Your task to perform on an android device: check out phone information Image 0: 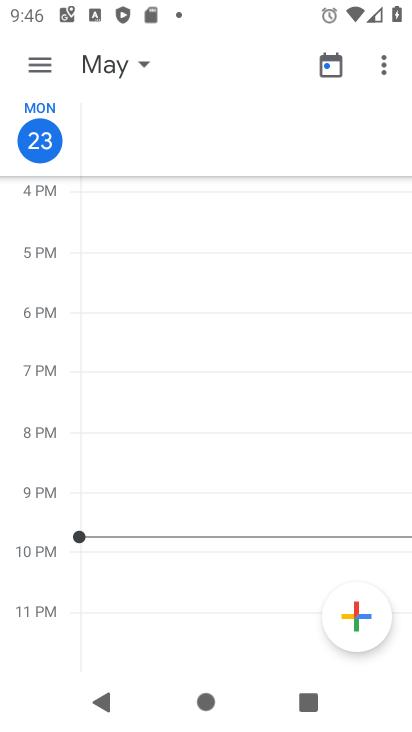
Step 0: press home button
Your task to perform on an android device: check out phone information Image 1: 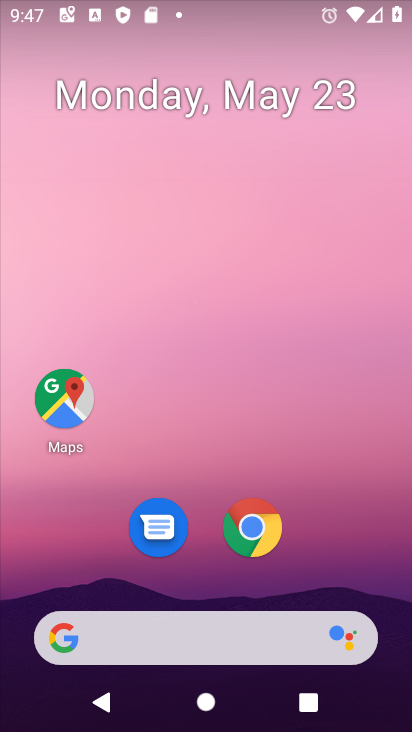
Step 1: drag from (342, 570) to (332, 4)
Your task to perform on an android device: check out phone information Image 2: 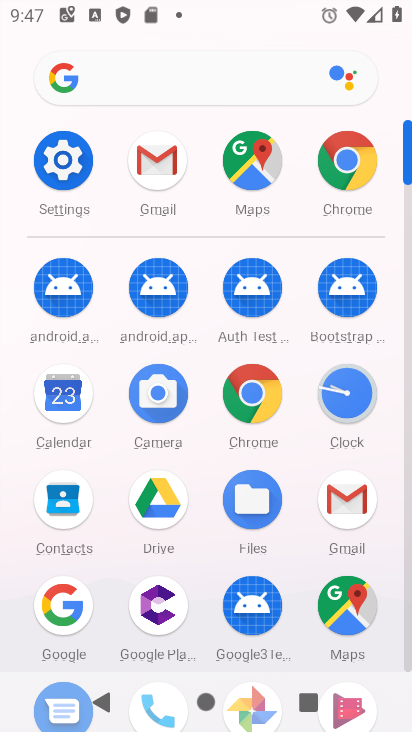
Step 2: click (63, 160)
Your task to perform on an android device: check out phone information Image 3: 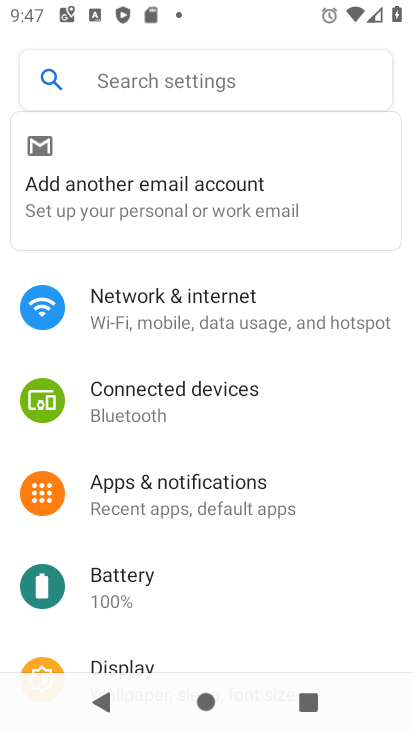
Step 3: drag from (267, 581) to (304, 107)
Your task to perform on an android device: check out phone information Image 4: 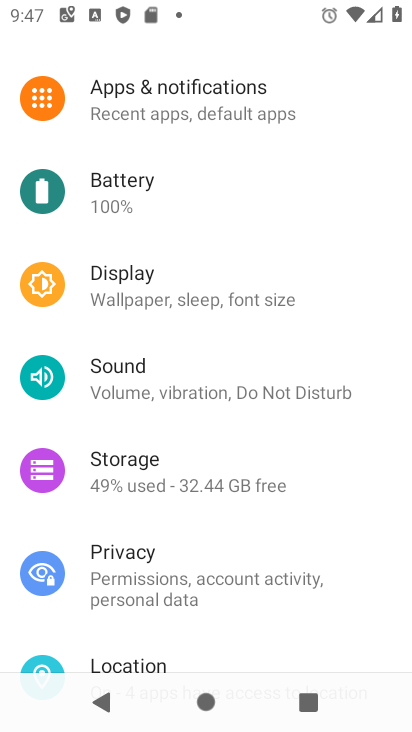
Step 4: drag from (267, 578) to (252, 96)
Your task to perform on an android device: check out phone information Image 5: 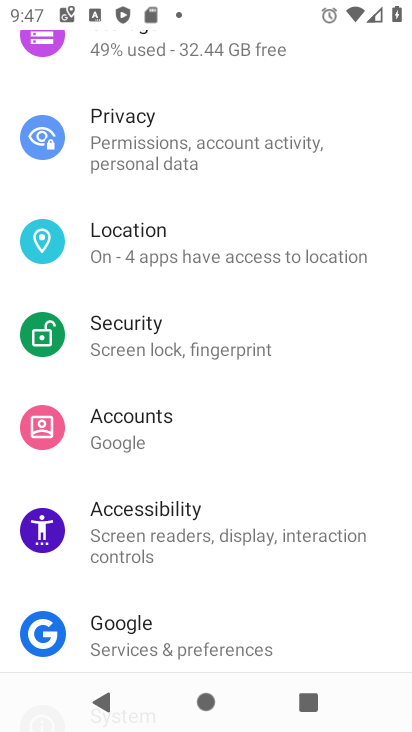
Step 5: drag from (256, 556) to (307, 106)
Your task to perform on an android device: check out phone information Image 6: 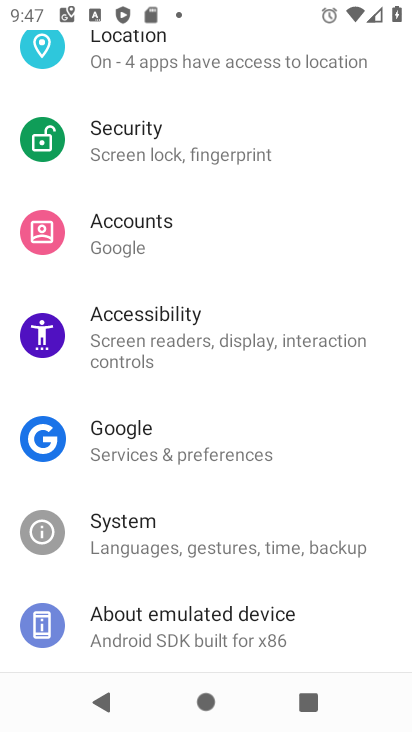
Step 6: click (188, 614)
Your task to perform on an android device: check out phone information Image 7: 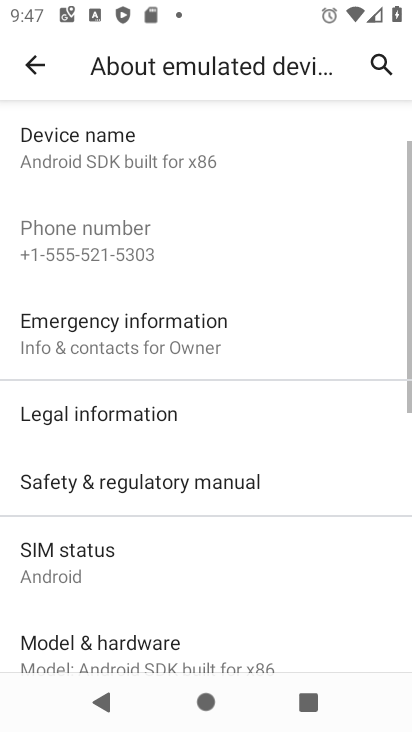
Step 7: task complete